Your task to perform on an android device: turn on bluetooth scan Image 0: 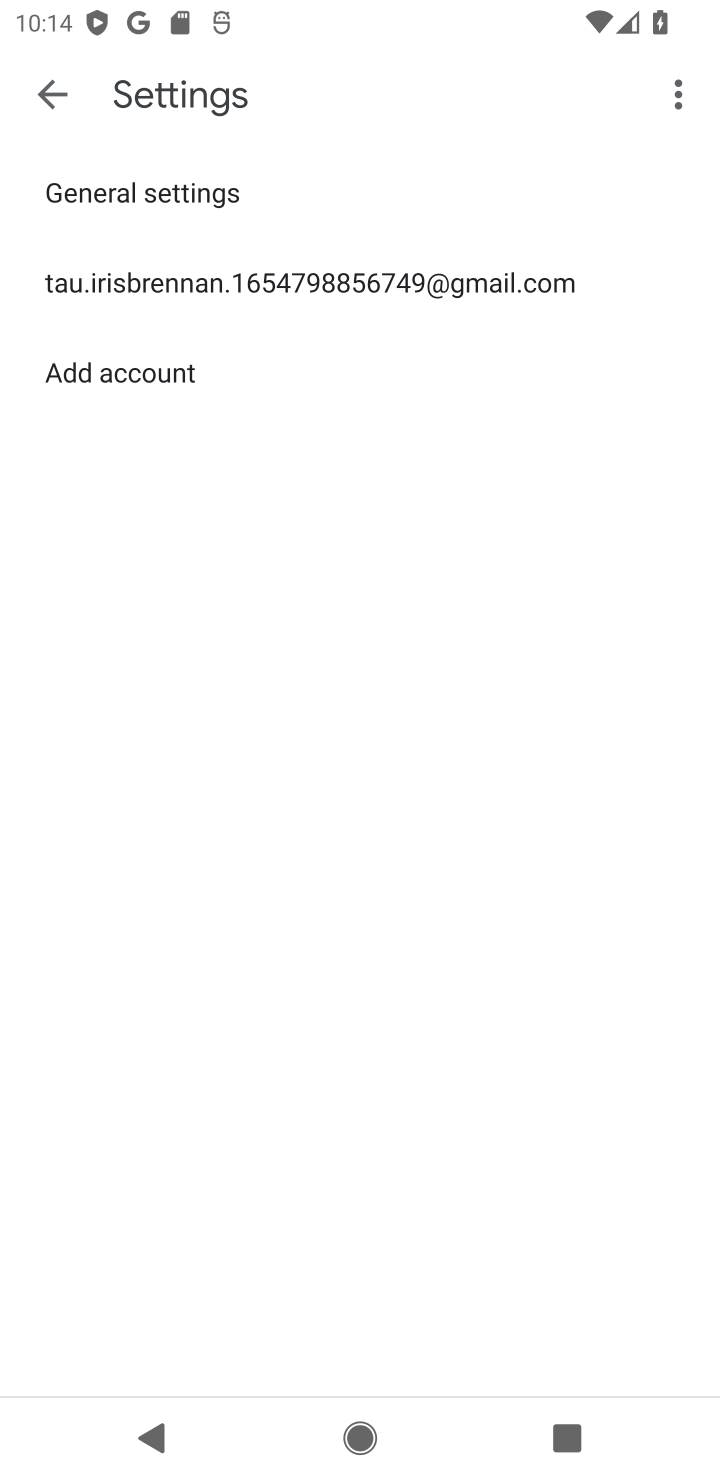
Step 0: press home button
Your task to perform on an android device: turn on bluetooth scan Image 1: 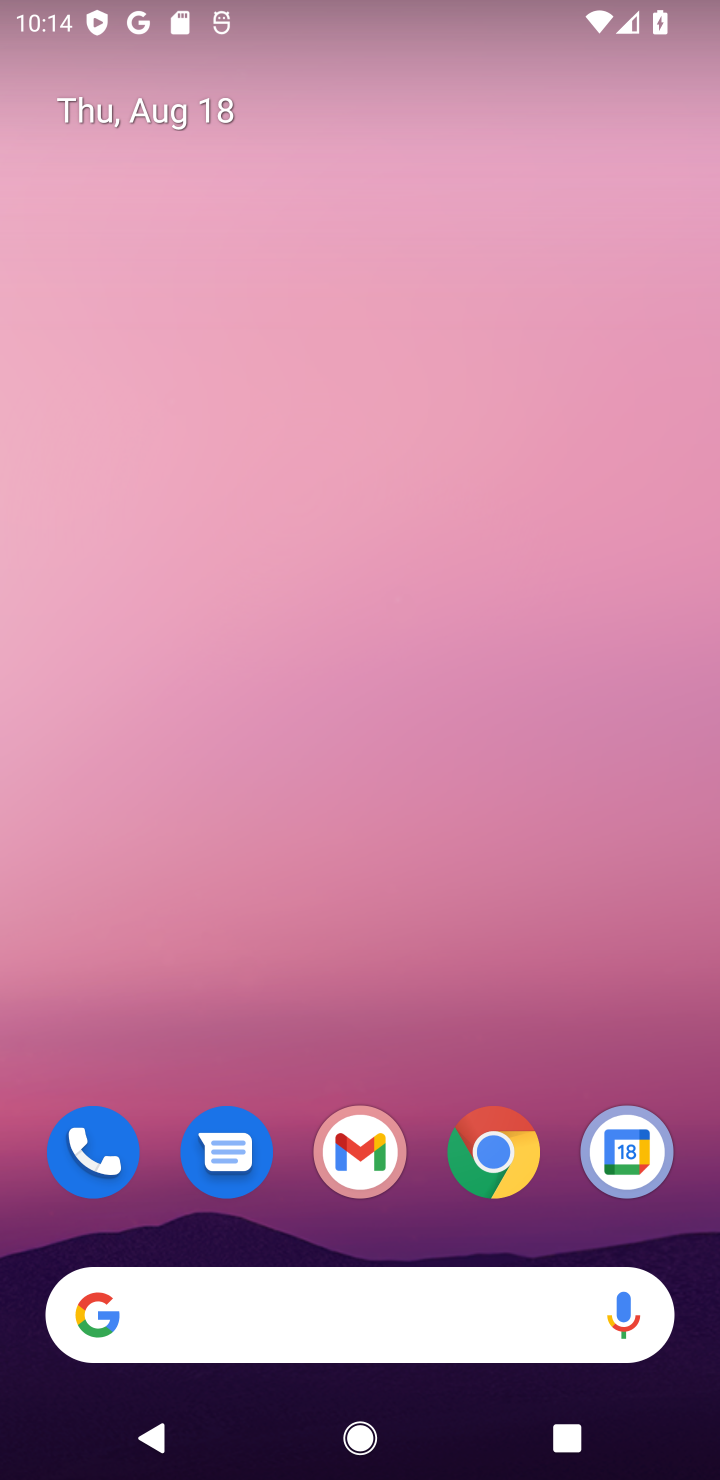
Step 1: drag from (362, 1052) to (531, 75)
Your task to perform on an android device: turn on bluetooth scan Image 2: 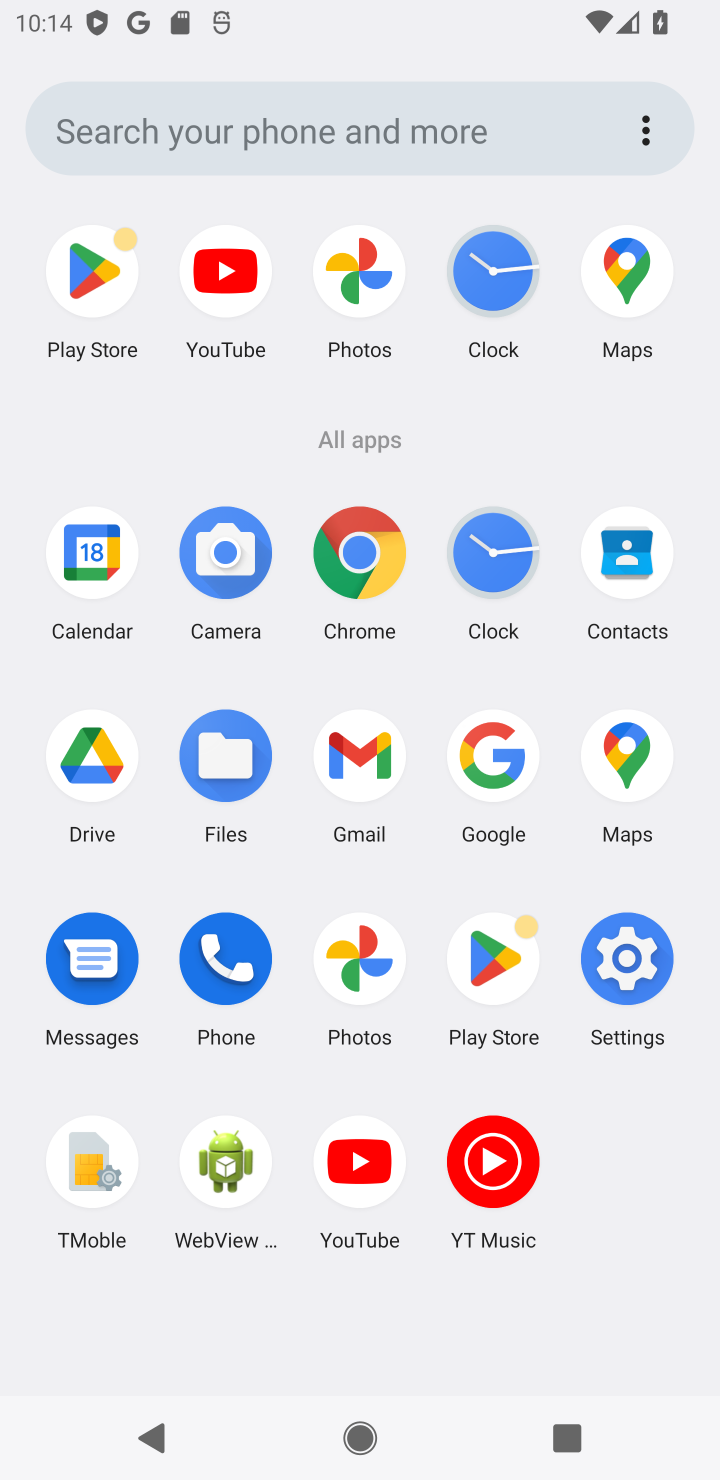
Step 2: click (620, 943)
Your task to perform on an android device: turn on bluetooth scan Image 3: 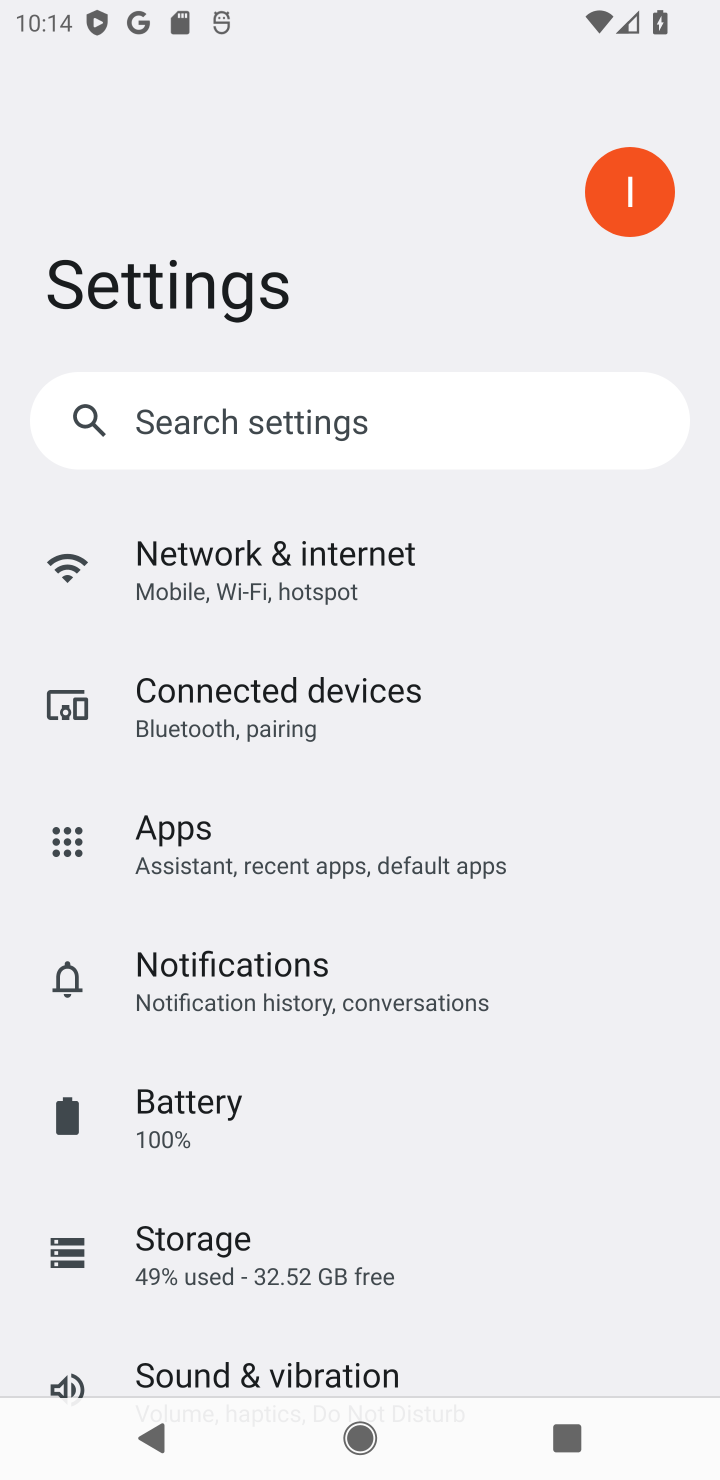
Step 3: drag from (398, 1126) to (449, 268)
Your task to perform on an android device: turn on bluetooth scan Image 4: 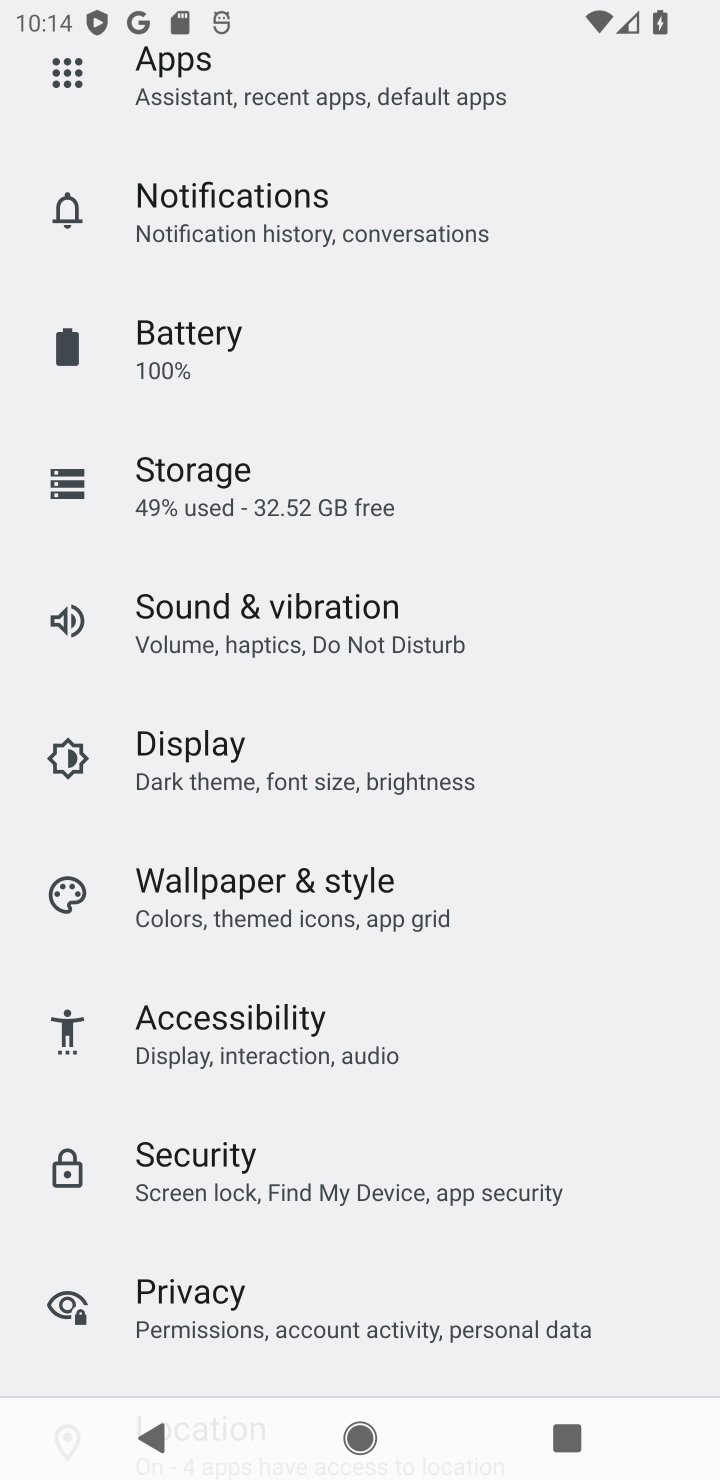
Step 4: drag from (462, 939) to (524, 386)
Your task to perform on an android device: turn on bluetooth scan Image 5: 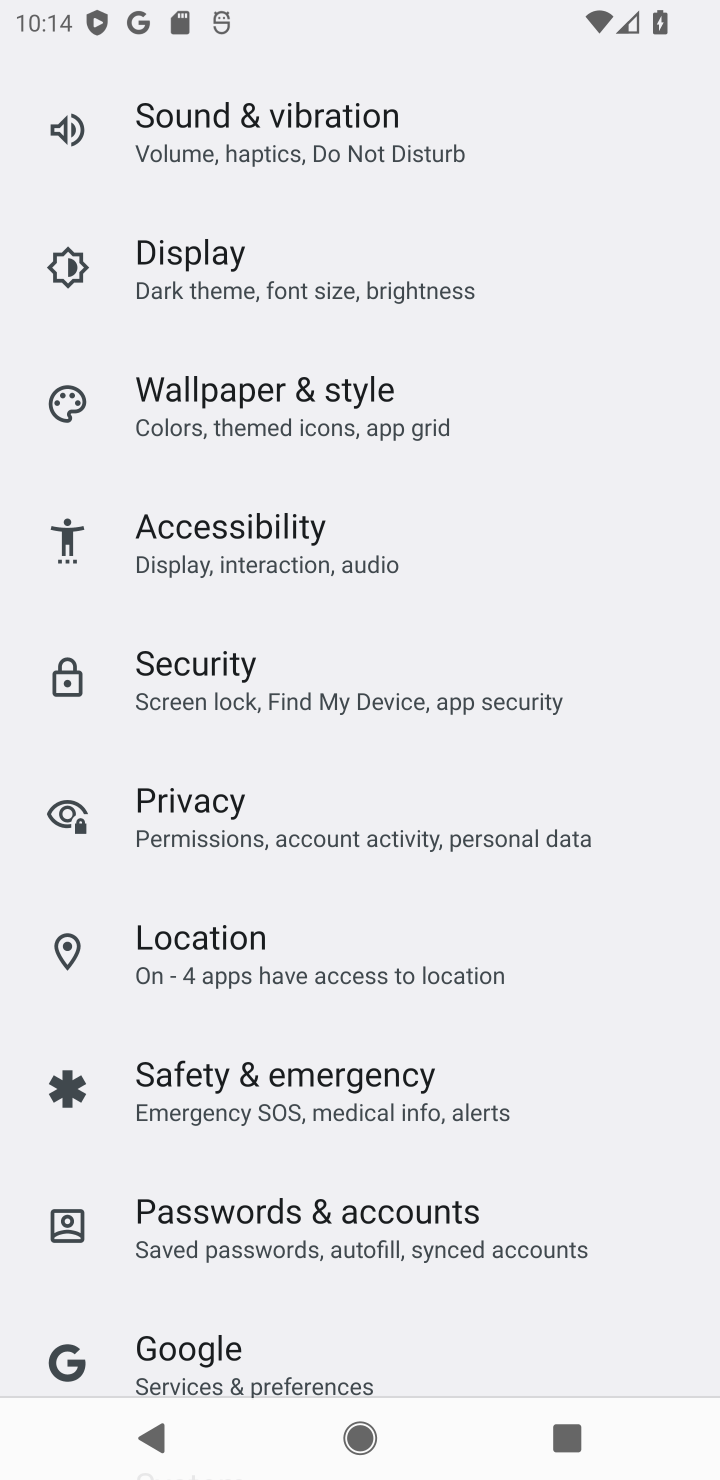
Step 5: click (305, 965)
Your task to perform on an android device: turn on bluetooth scan Image 6: 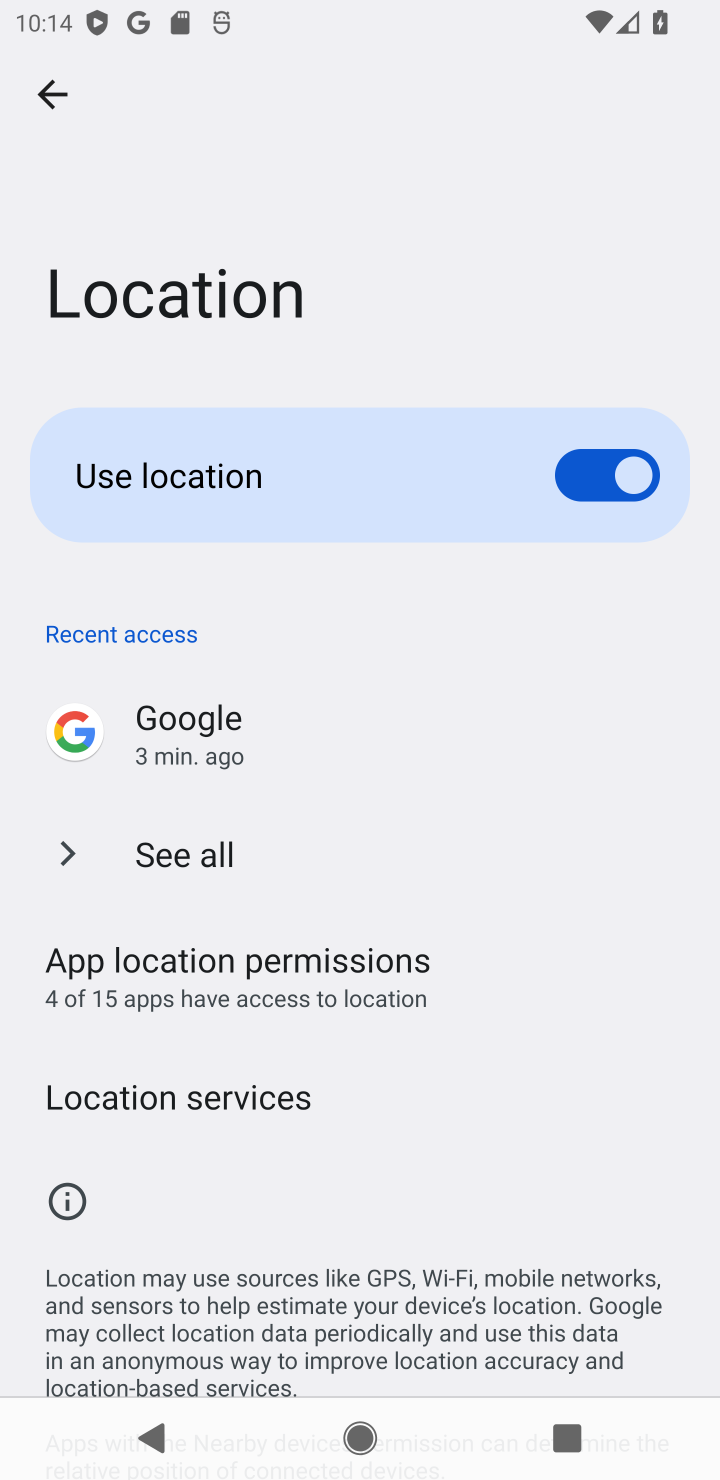
Step 6: click (281, 1097)
Your task to perform on an android device: turn on bluetooth scan Image 7: 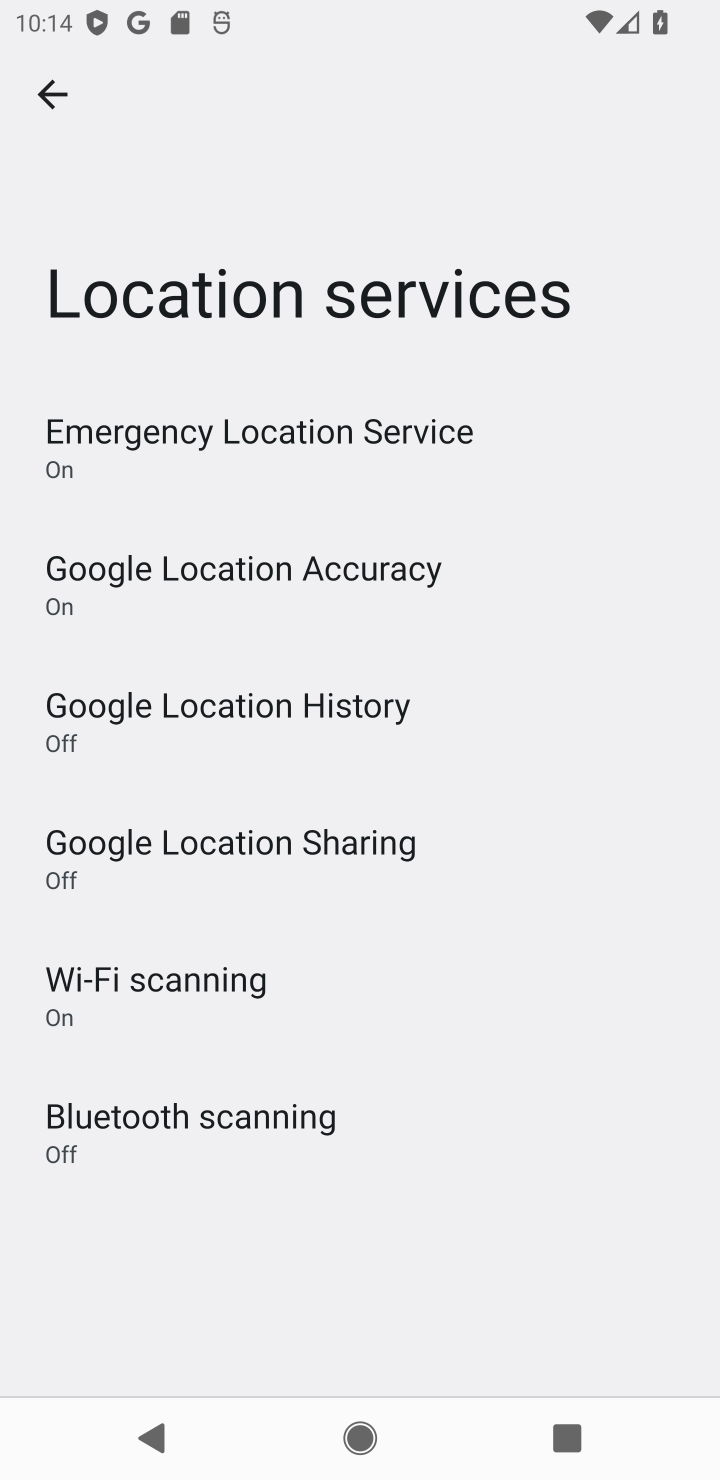
Step 7: click (289, 1104)
Your task to perform on an android device: turn on bluetooth scan Image 8: 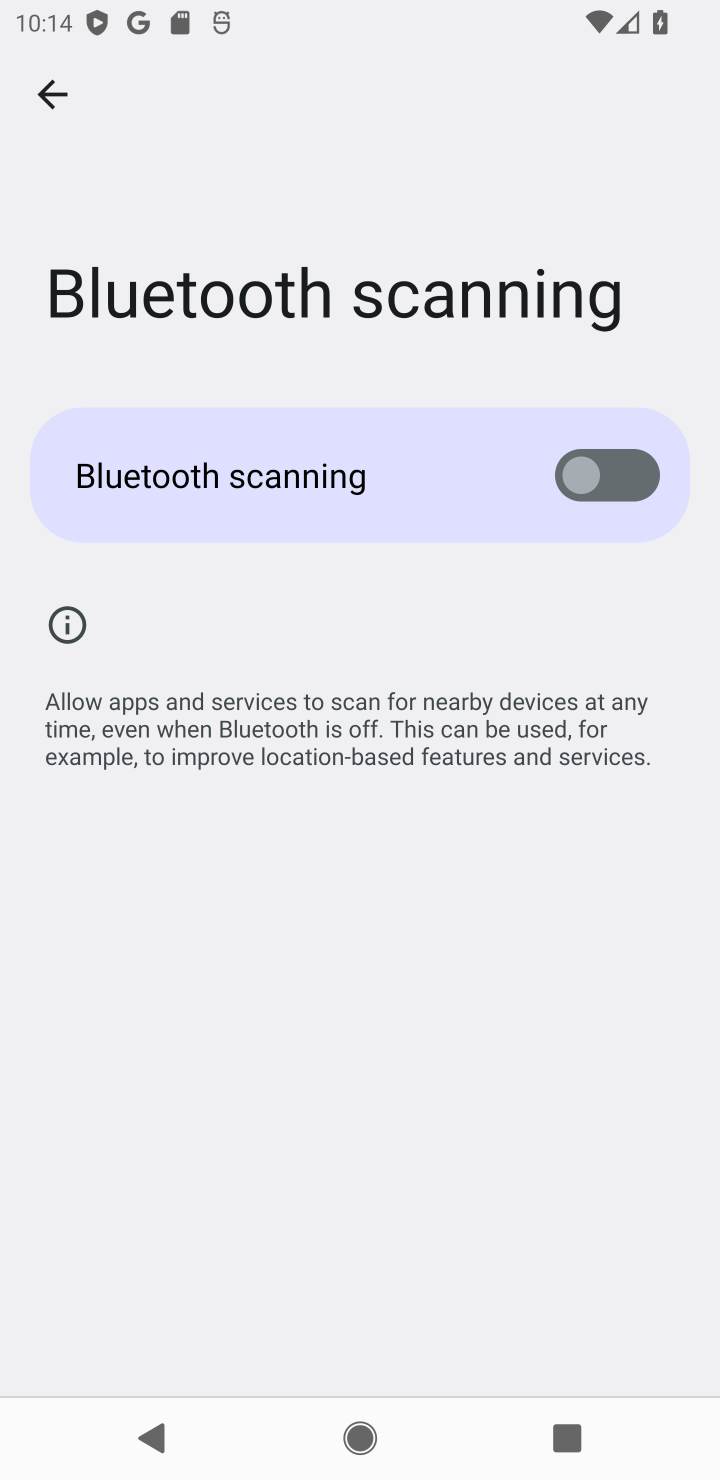
Step 8: click (627, 467)
Your task to perform on an android device: turn on bluetooth scan Image 9: 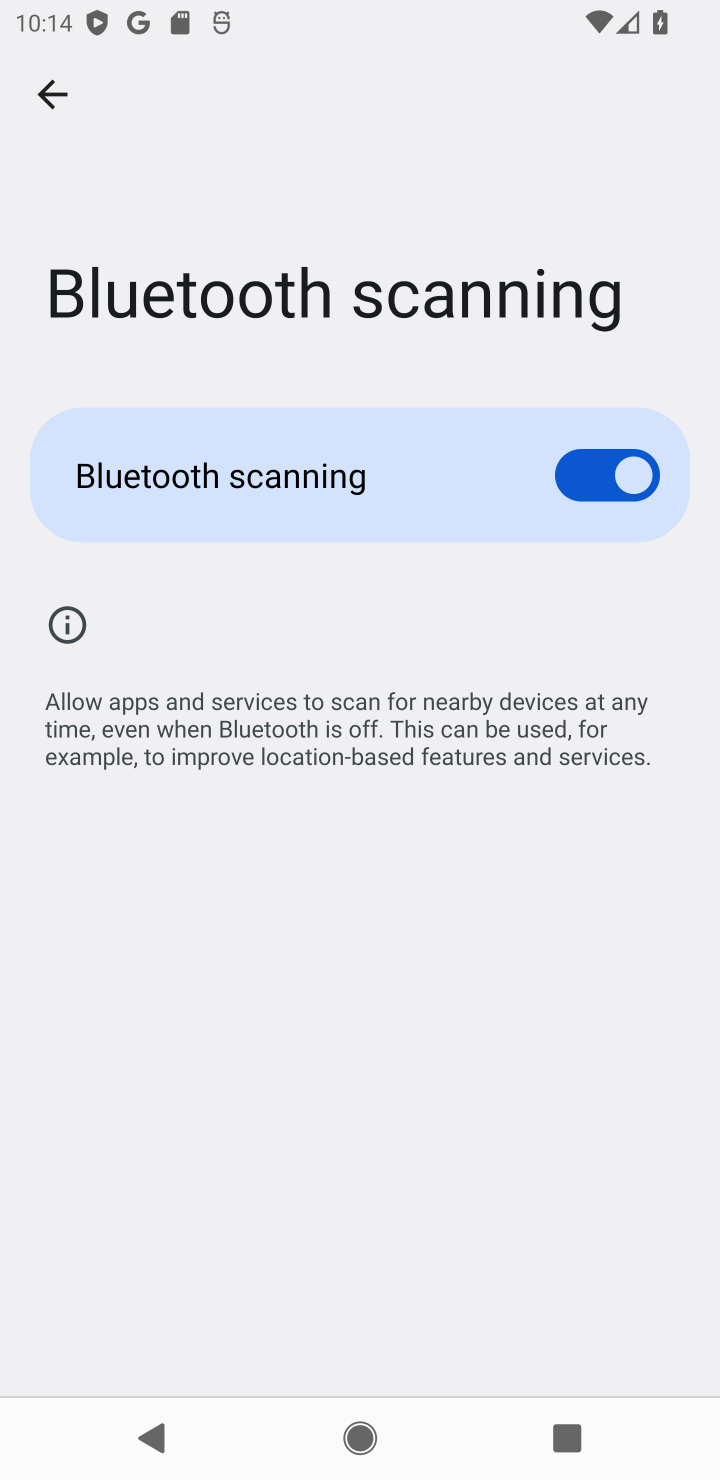
Step 9: task complete